Your task to perform on an android device: open sync settings in chrome Image 0: 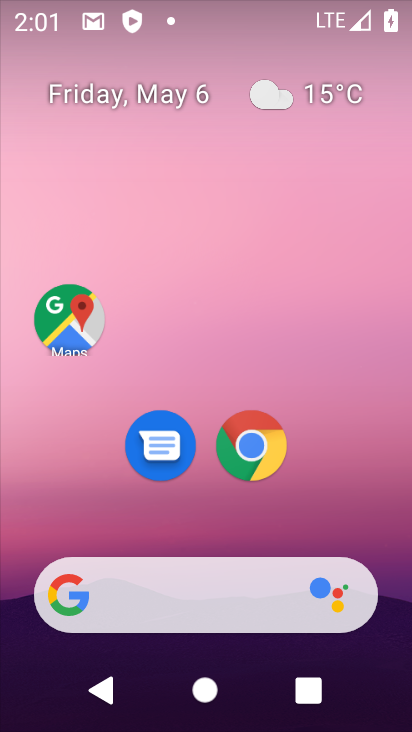
Step 0: click (251, 444)
Your task to perform on an android device: open sync settings in chrome Image 1: 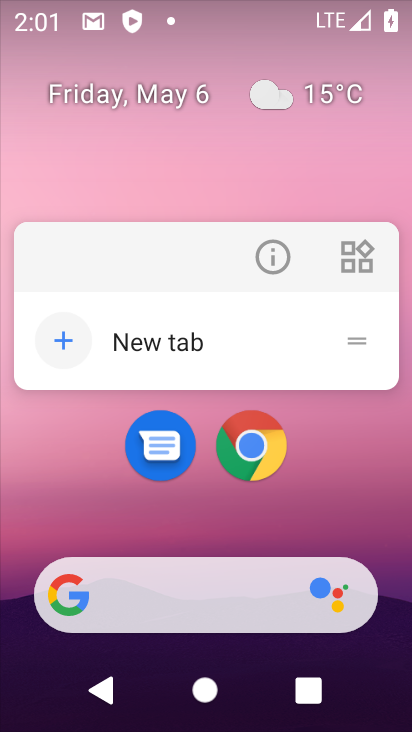
Step 1: click (251, 444)
Your task to perform on an android device: open sync settings in chrome Image 2: 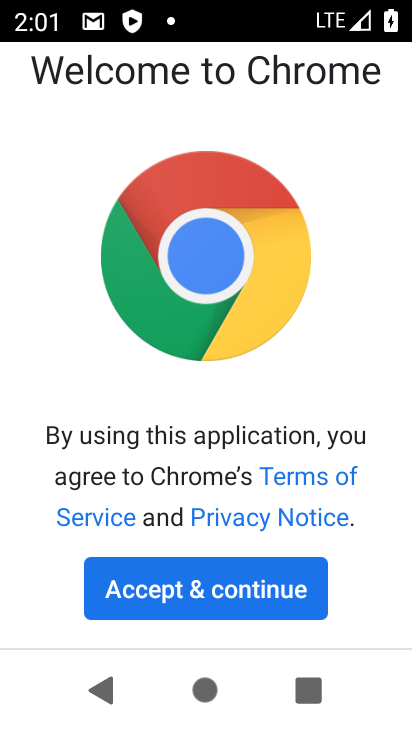
Step 2: click (199, 580)
Your task to perform on an android device: open sync settings in chrome Image 3: 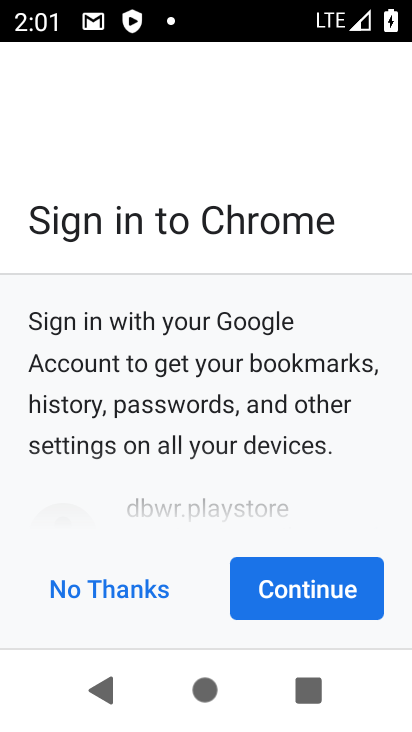
Step 3: click (255, 590)
Your task to perform on an android device: open sync settings in chrome Image 4: 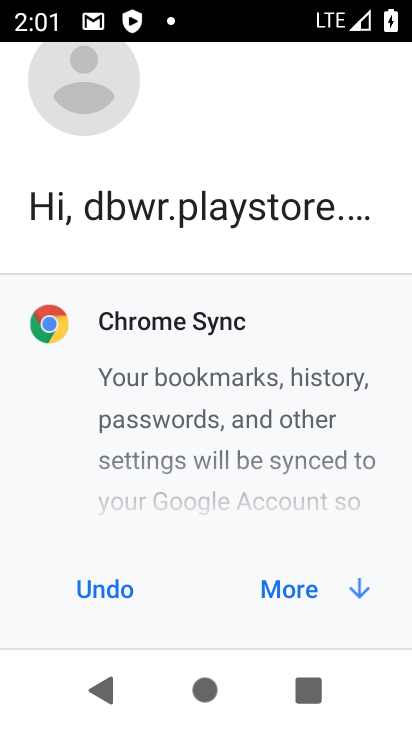
Step 4: click (256, 588)
Your task to perform on an android device: open sync settings in chrome Image 5: 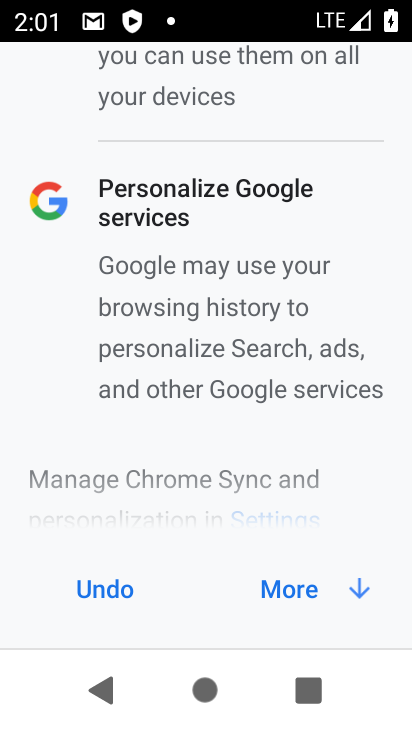
Step 5: click (269, 579)
Your task to perform on an android device: open sync settings in chrome Image 6: 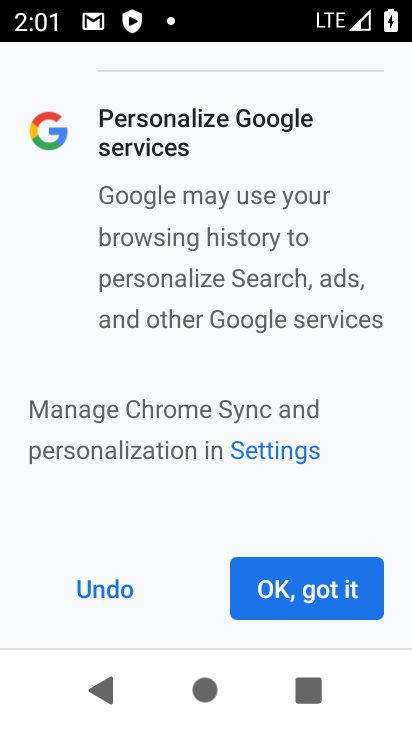
Step 6: click (284, 579)
Your task to perform on an android device: open sync settings in chrome Image 7: 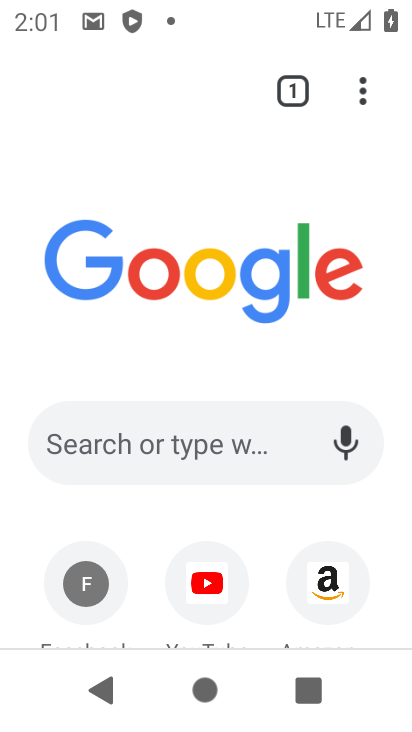
Step 7: click (354, 97)
Your task to perform on an android device: open sync settings in chrome Image 8: 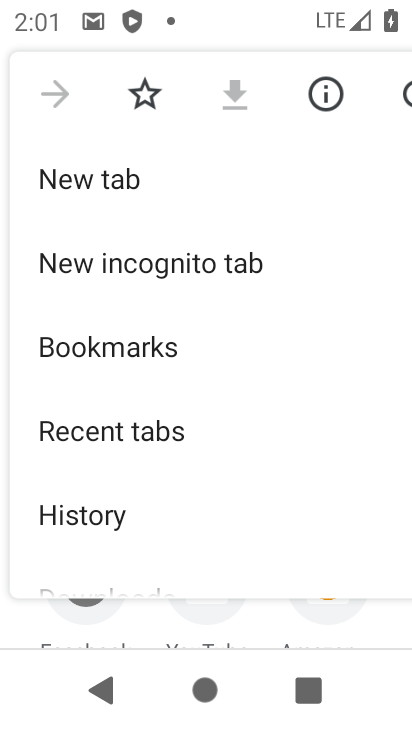
Step 8: drag from (151, 521) to (167, 351)
Your task to perform on an android device: open sync settings in chrome Image 9: 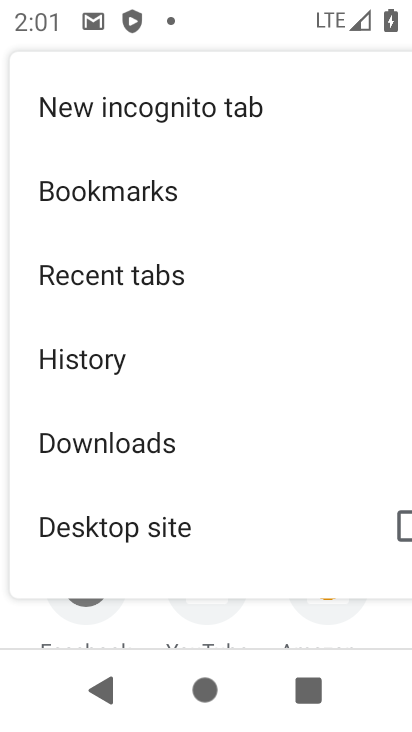
Step 9: drag from (167, 512) to (238, 255)
Your task to perform on an android device: open sync settings in chrome Image 10: 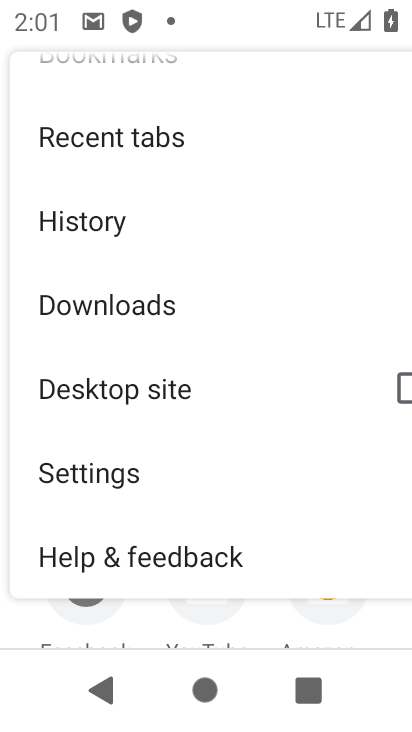
Step 10: click (187, 458)
Your task to perform on an android device: open sync settings in chrome Image 11: 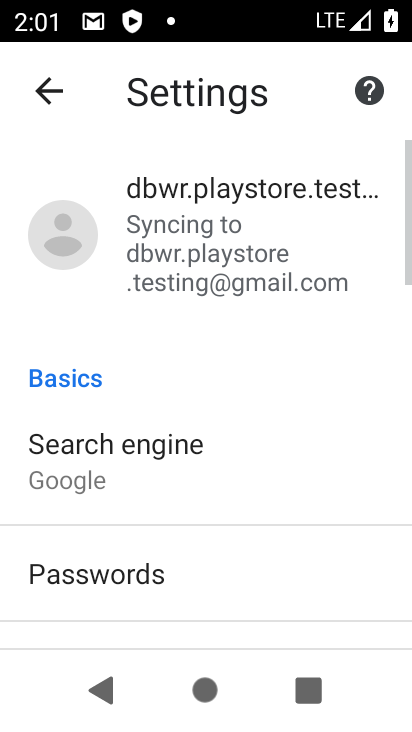
Step 11: click (215, 262)
Your task to perform on an android device: open sync settings in chrome Image 12: 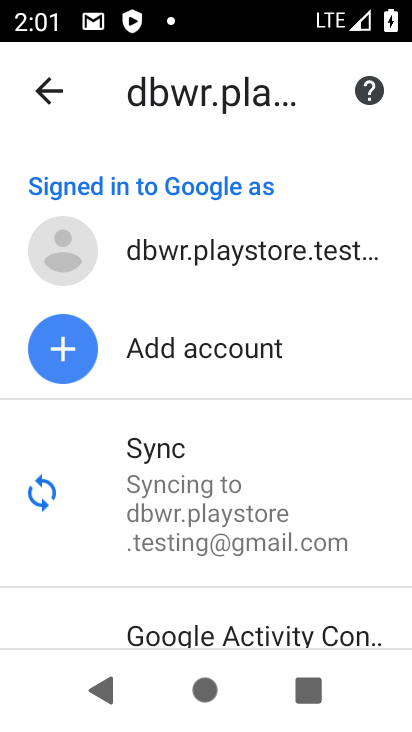
Step 12: click (189, 482)
Your task to perform on an android device: open sync settings in chrome Image 13: 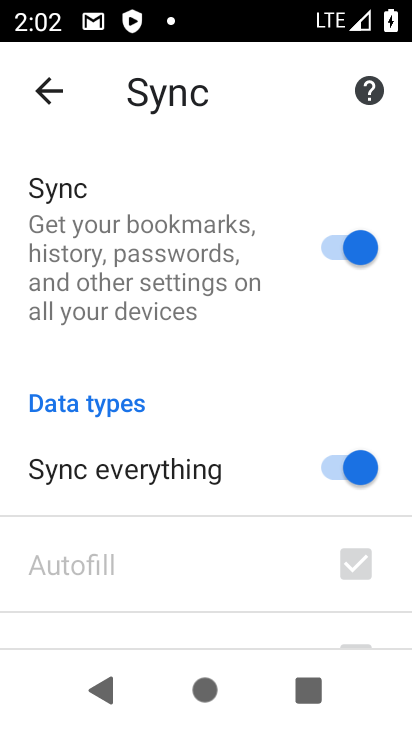
Step 13: task complete